Your task to perform on an android device: open the mobile data screen to see how much data has been used Image 0: 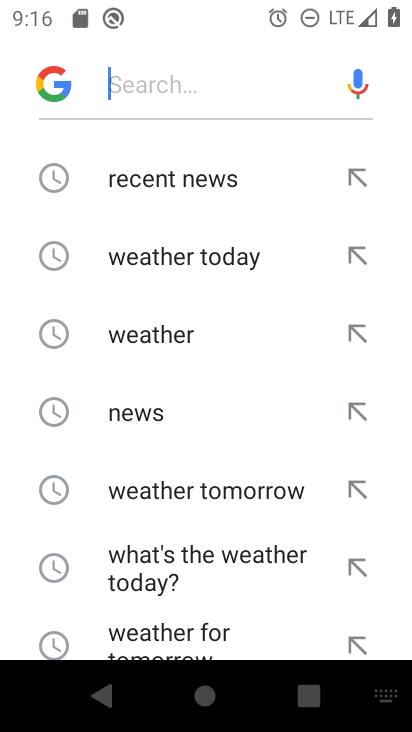
Step 0: press home button
Your task to perform on an android device: open the mobile data screen to see how much data has been used Image 1: 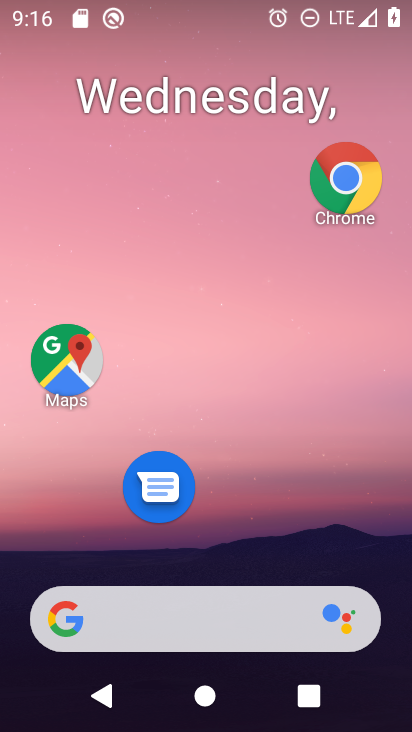
Step 1: drag from (195, 608) to (270, 86)
Your task to perform on an android device: open the mobile data screen to see how much data has been used Image 2: 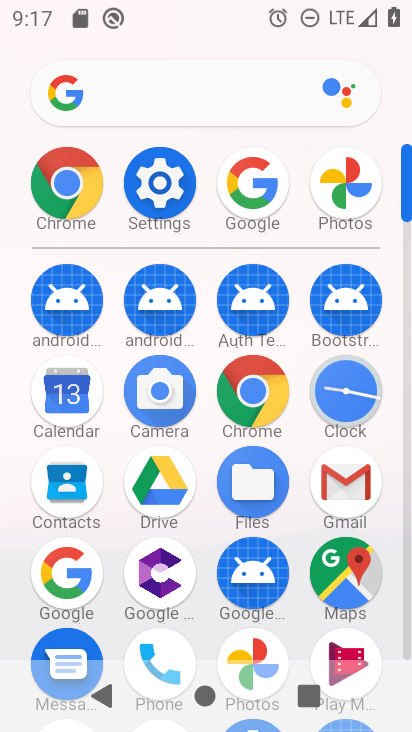
Step 2: click (157, 187)
Your task to perform on an android device: open the mobile data screen to see how much data has been used Image 3: 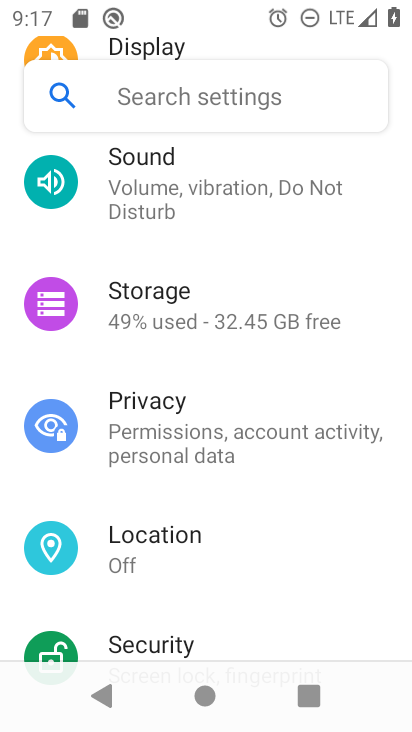
Step 3: drag from (262, 206) to (280, 614)
Your task to perform on an android device: open the mobile data screen to see how much data has been used Image 4: 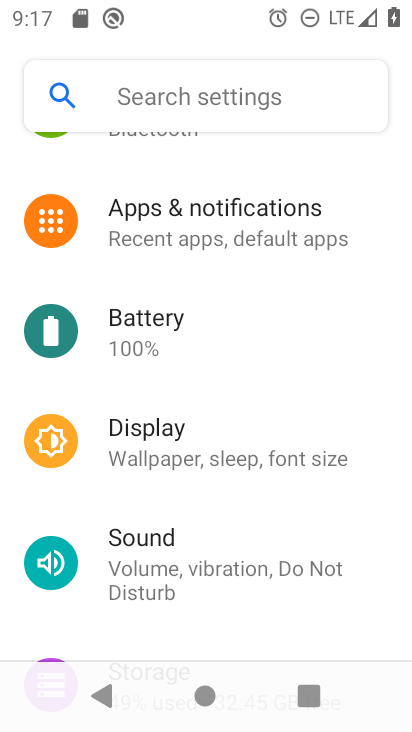
Step 4: drag from (318, 542) to (322, 638)
Your task to perform on an android device: open the mobile data screen to see how much data has been used Image 5: 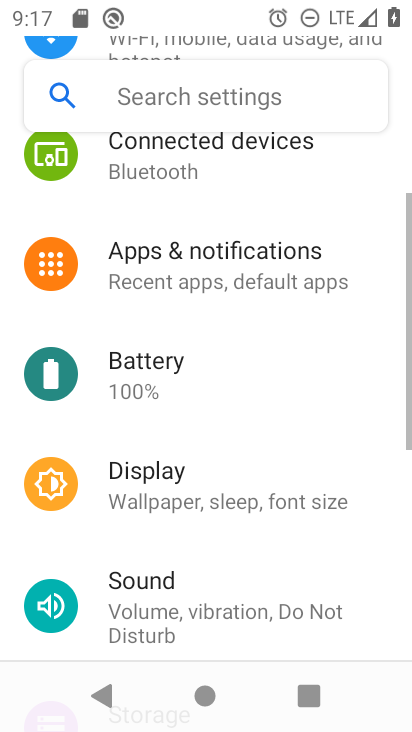
Step 5: drag from (215, 277) to (194, 624)
Your task to perform on an android device: open the mobile data screen to see how much data has been used Image 6: 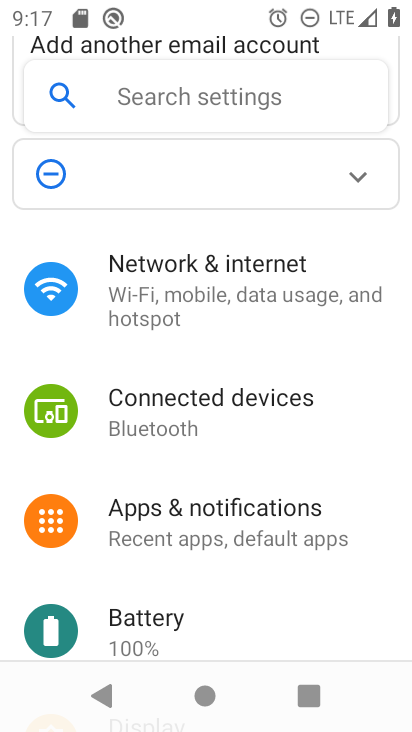
Step 6: click (183, 313)
Your task to perform on an android device: open the mobile data screen to see how much data has been used Image 7: 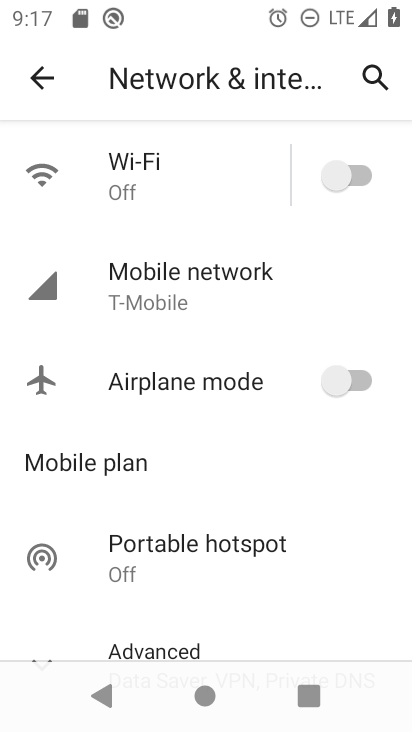
Step 7: click (301, 303)
Your task to perform on an android device: open the mobile data screen to see how much data has been used Image 8: 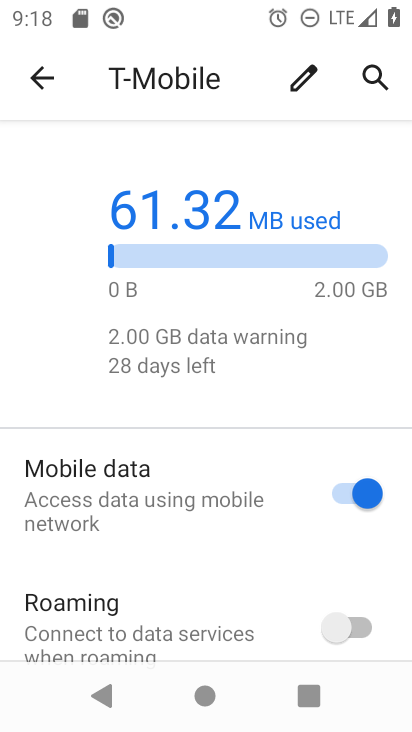
Step 8: drag from (172, 604) to (391, 538)
Your task to perform on an android device: open the mobile data screen to see how much data has been used Image 9: 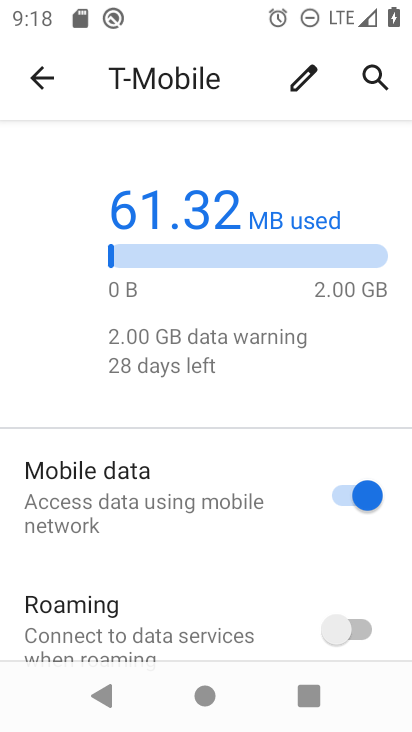
Step 9: drag from (217, 566) to (254, 220)
Your task to perform on an android device: open the mobile data screen to see how much data has been used Image 10: 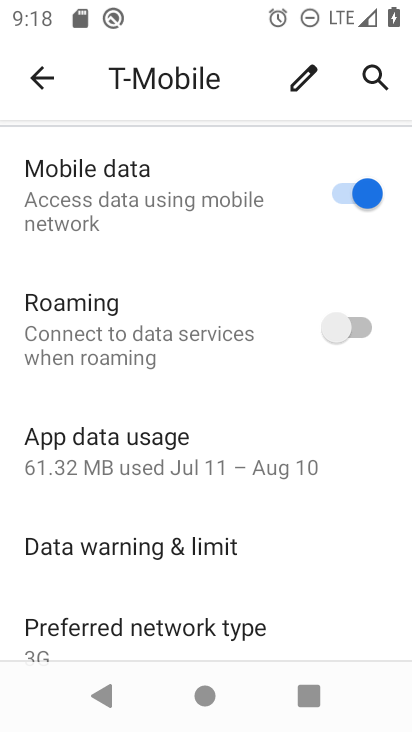
Step 10: click (216, 476)
Your task to perform on an android device: open the mobile data screen to see how much data has been used Image 11: 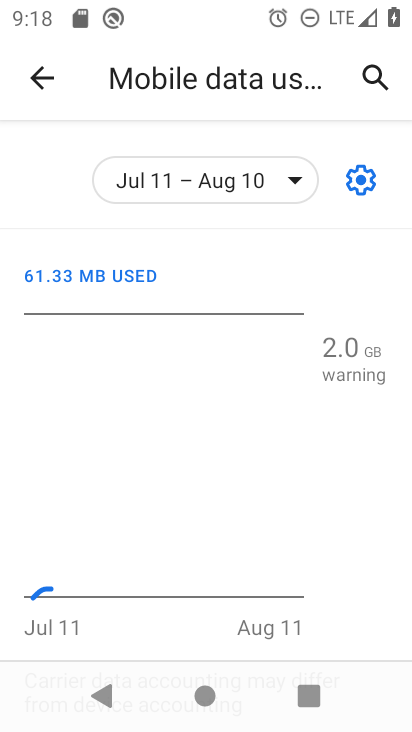
Step 11: task complete